Your task to perform on an android device: manage bookmarks in the chrome app Image 0: 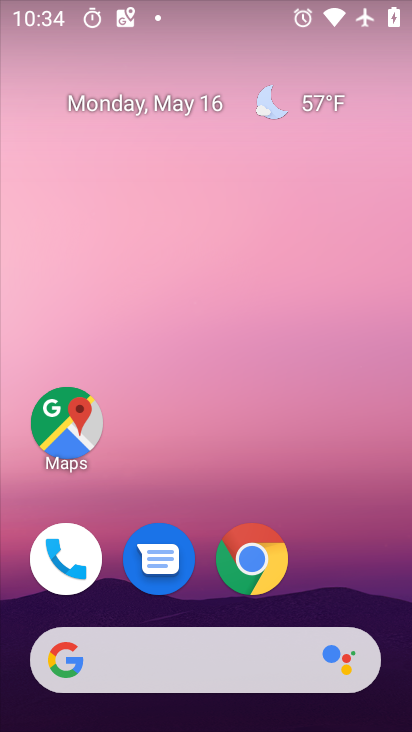
Step 0: press home button
Your task to perform on an android device: manage bookmarks in the chrome app Image 1: 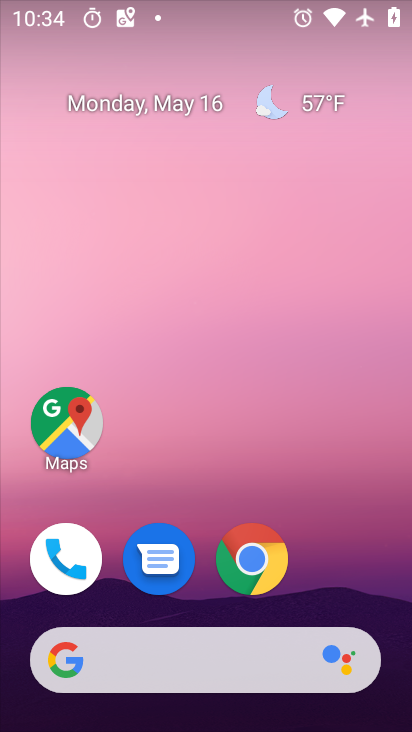
Step 1: click (245, 551)
Your task to perform on an android device: manage bookmarks in the chrome app Image 2: 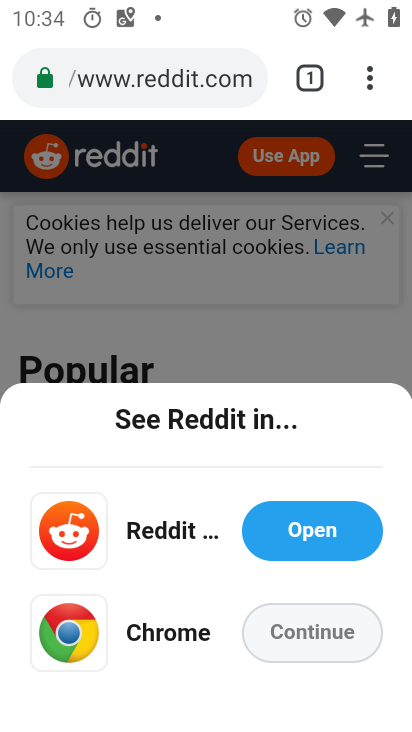
Step 2: click (375, 75)
Your task to perform on an android device: manage bookmarks in the chrome app Image 3: 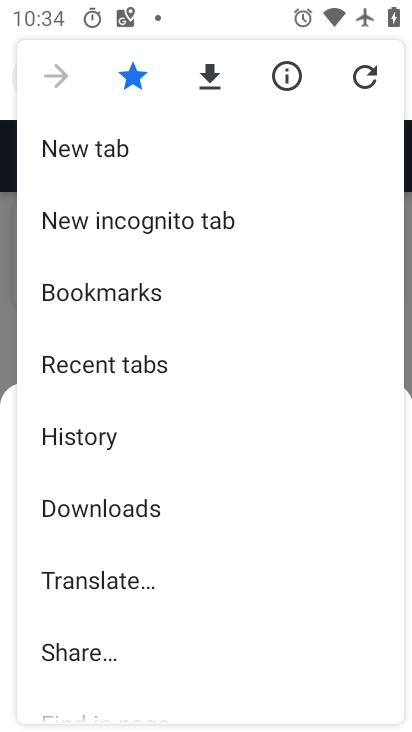
Step 3: click (156, 307)
Your task to perform on an android device: manage bookmarks in the chrome app Image 4: 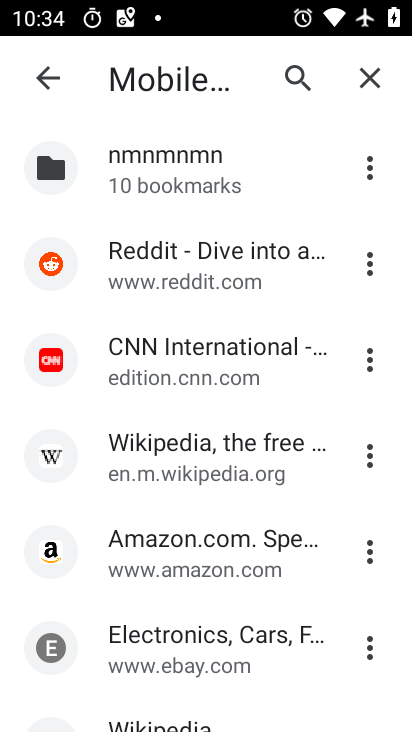
Step 4: click (373, 451)
Your task to perform on an android device: manage bookmarks in the chrome app Image 5: 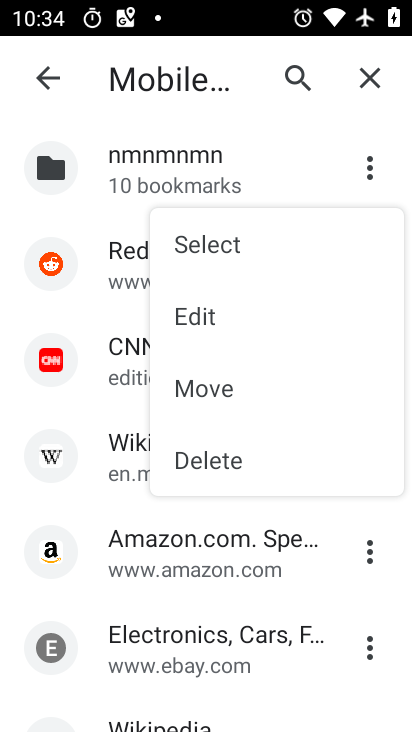
Step 5: click (210, 457)
Your task to perform on an android device: manage bookmarks in the chrome app Image 6: 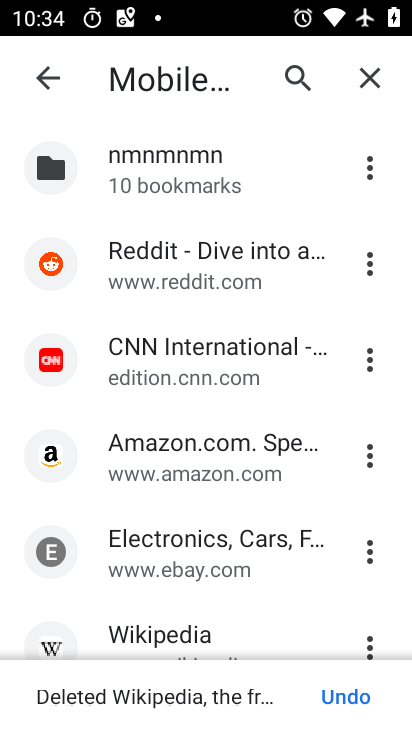
Step 6: task complete